Your task to perform on an android device: Open privacy settings Image 0: 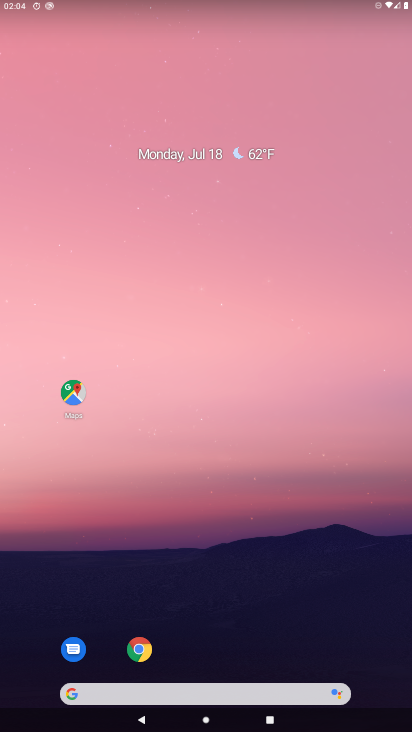
Step 0: drag from (66, 602) to (180, 69)
Your task to perform on an android device: Open privacy settings Image 1: 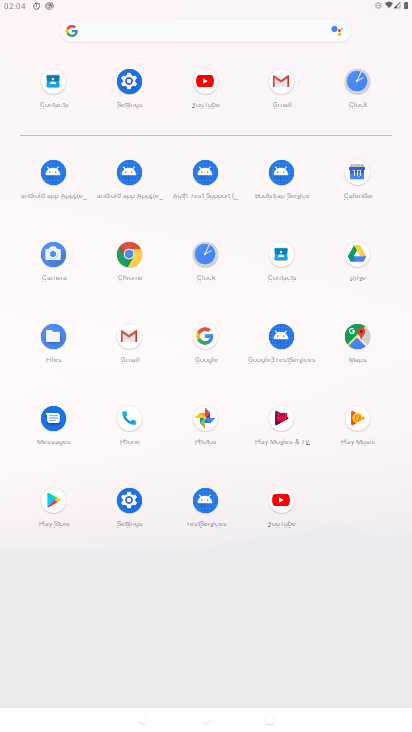
Step 1: click (144, 499)
Your task to perform on an android device: Open privacy settings Image 2: 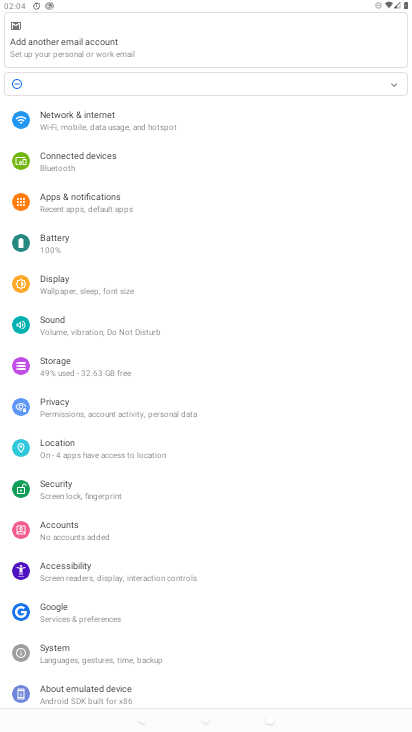
Step 2: click (67, 404)
Your task to perform on an android device: Open privacy settings Image 3: 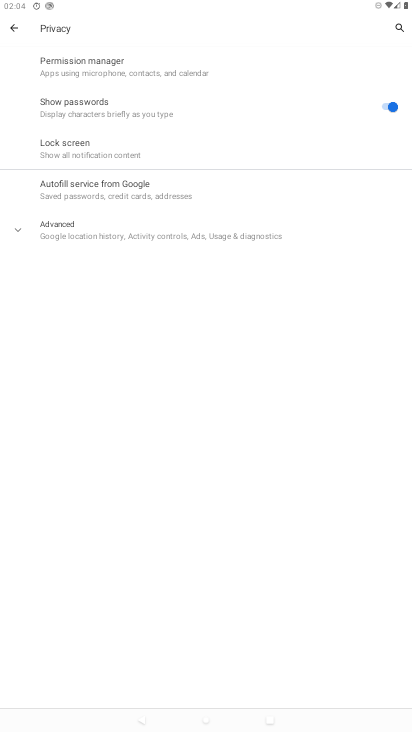
Step 3: task complete